Your task to perform on an android device: Do I have any events this weekend? Image 0: 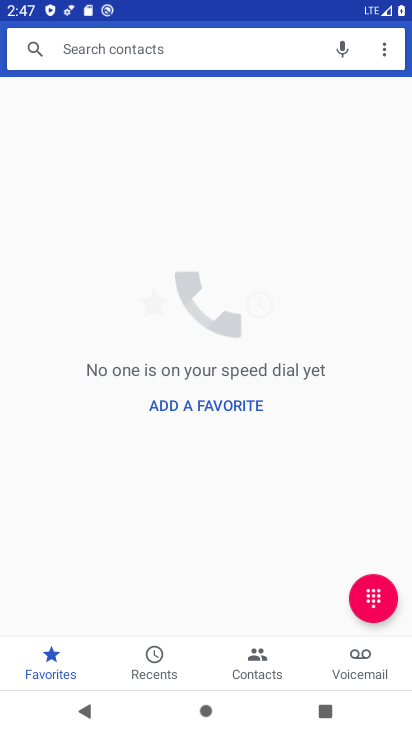
Step 0: press home button
Your task to perform on an android device: Do I have any events this weekend? Image 1: 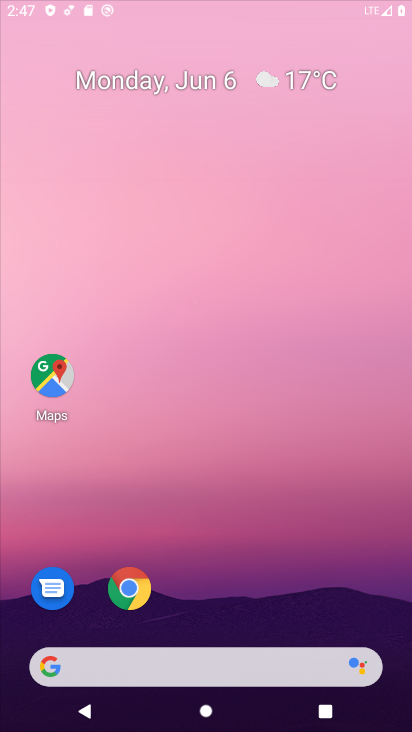
Step 1: drag from (254, 654) to (286, 126)
Your task to perform on an android device: Do I have any events this weekend? Image 2: 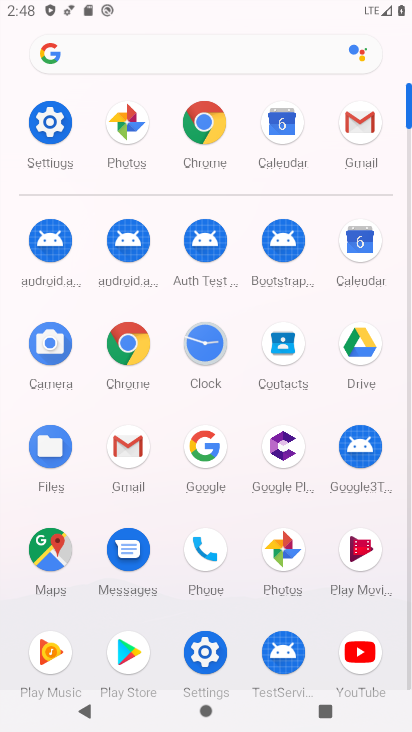
Step 2: click (348, 257)
Your task to perform on an android device: Do I have any events this weekend? Image 3: 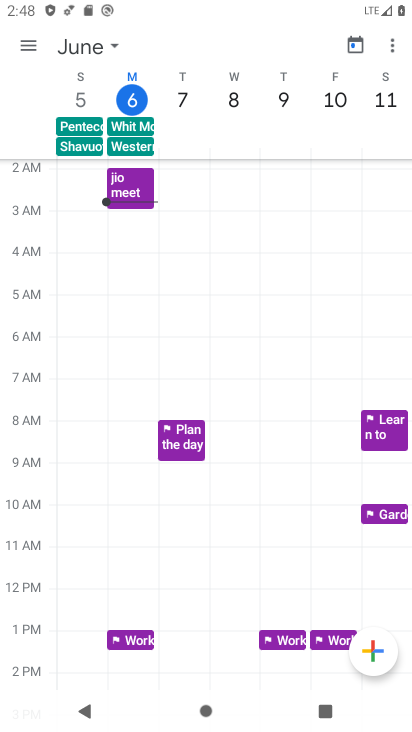
Step 3: task complete